Your task to perform on an android device: Open Reddit.com Image 0: 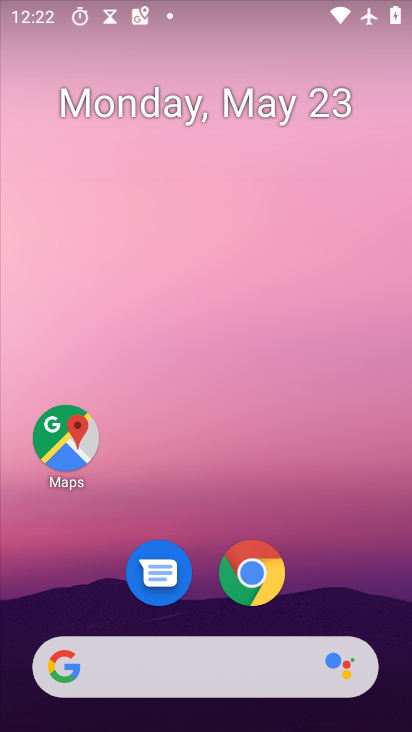
Step 0: press home button
Your task to perform on an android device: Open Reddit.com Image 1: 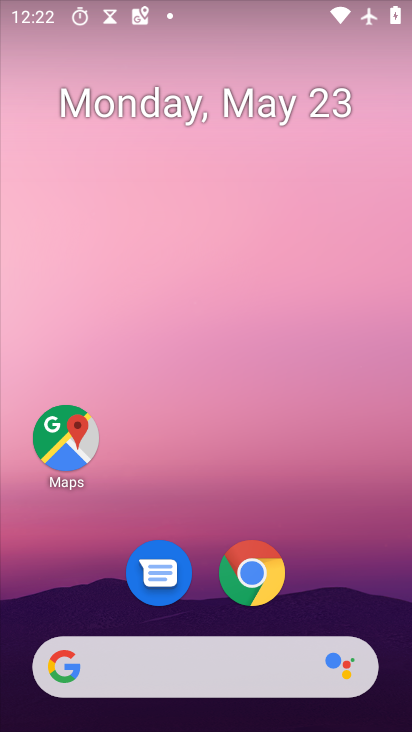
Step 1: click (269, 570)
Your task to perform on an android device: Open Reddit.com Image 2: 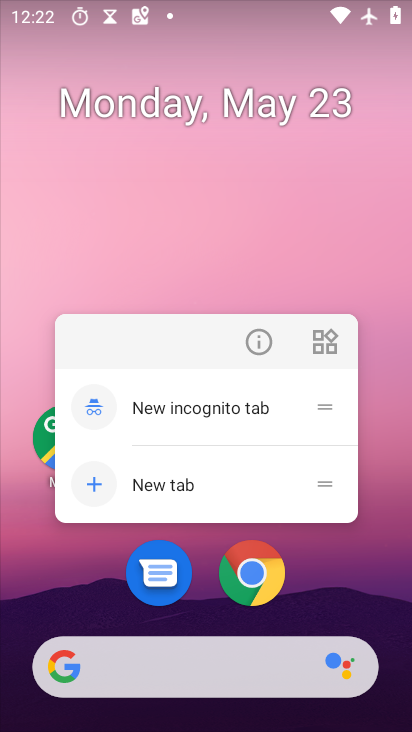
Step 2: click (269, 566)
Your task to perform on an android device: Open Reddit.com Image 3: 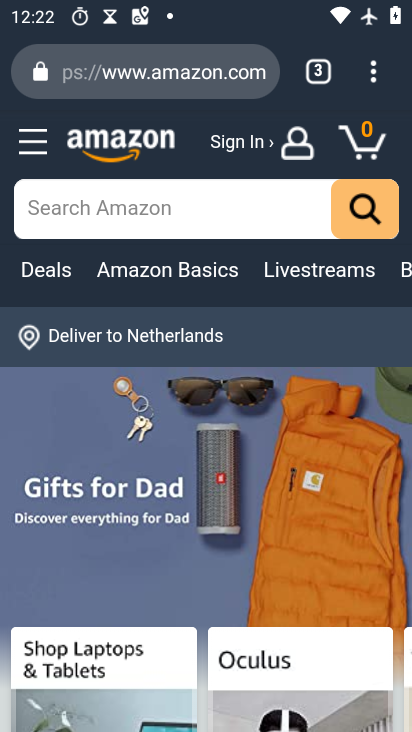
Step 3: drag from (372, 78) to (178, 144)
Your task to perform on an android device: Open Reddit.com Image 4: 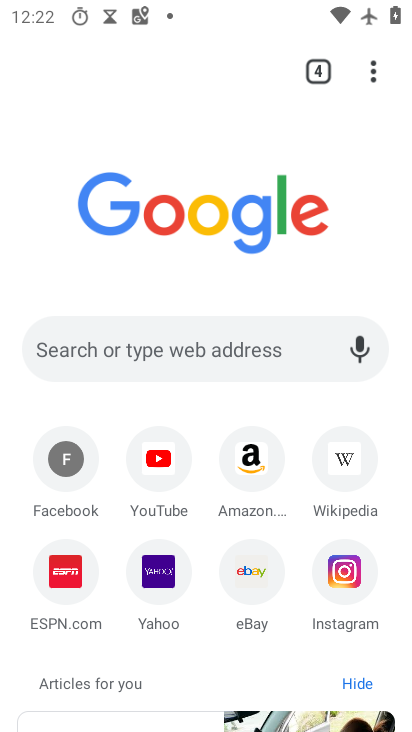
Step 4: click (167, 341)
Your task to perform on an android device: Open Reddit.com Image 5: 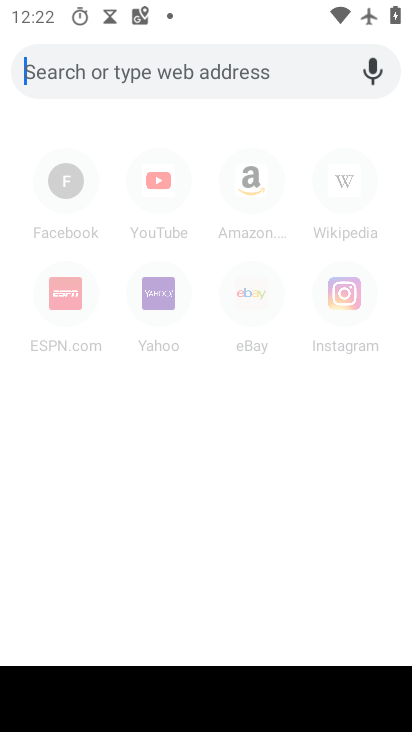
Step 5: type "reddit.com"
Your task to perform on an android device: Open Reddit.com Image 6: 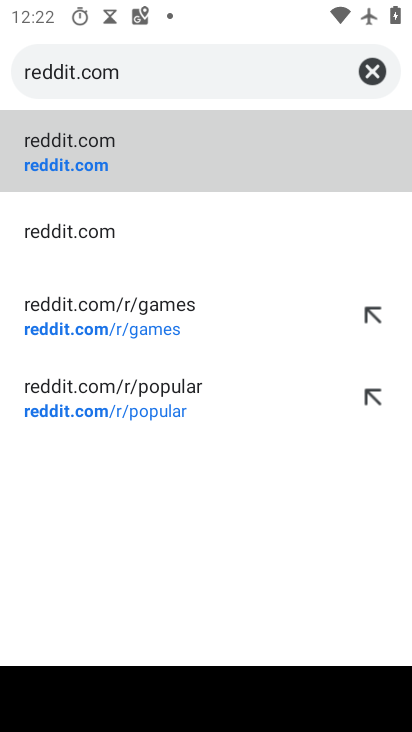
Step 6: click (93, 154)
Your task to perform on an android device: Open Reddit.com Image 7: 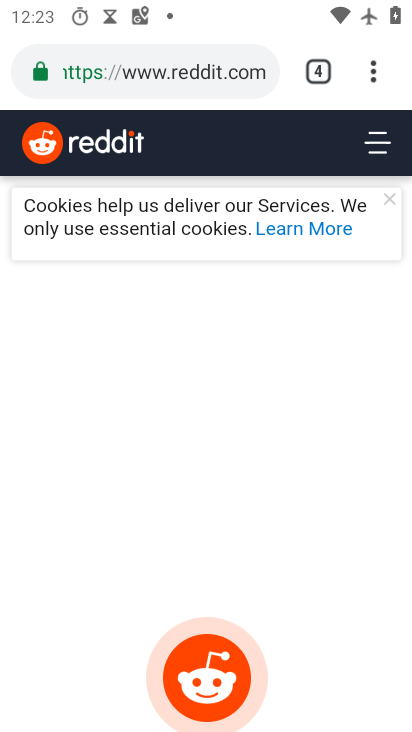
Step 7: task complete